Your task to perform on an android device: Search for Mexican restaurants on Maps Image 0: 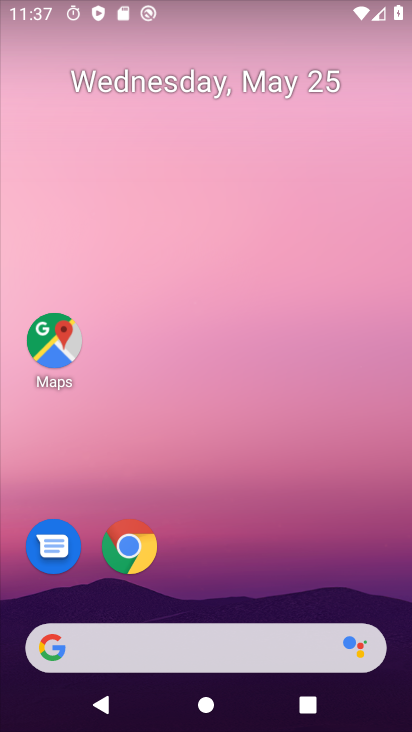
Step 0: click (38, 337)
Your task to perform on an android device: Search for Mexican restaurants on Maps Image 1: 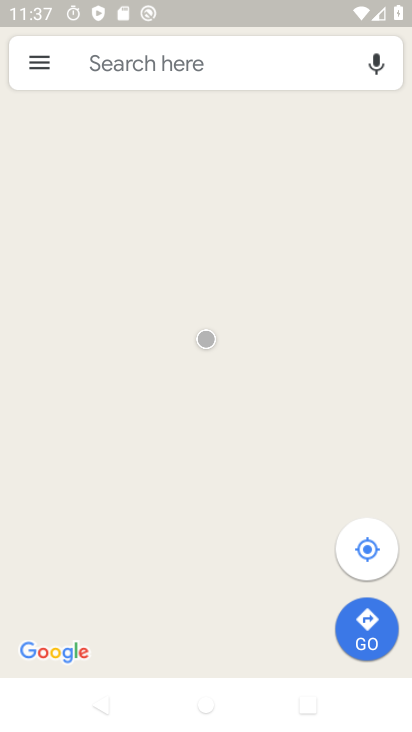
Step 1: click (101, 70)
Your task to perform on an android device: Search for Mexican restaurants on Maps Image 2: 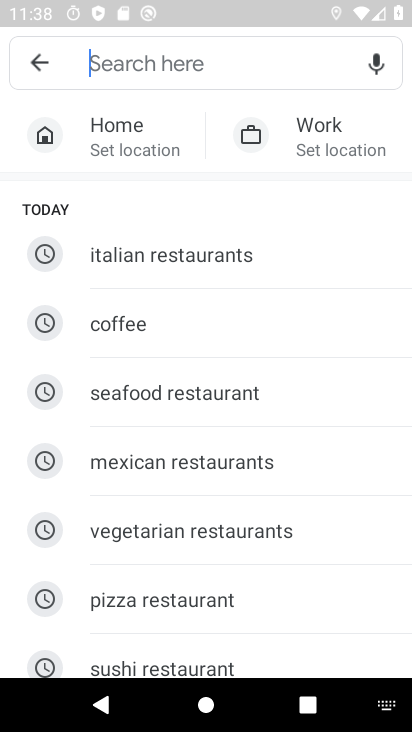
Step 2: type "mexican restaurants"
Your task to perform on an android device: Search for Mexican restaurants on Maps Image 3: 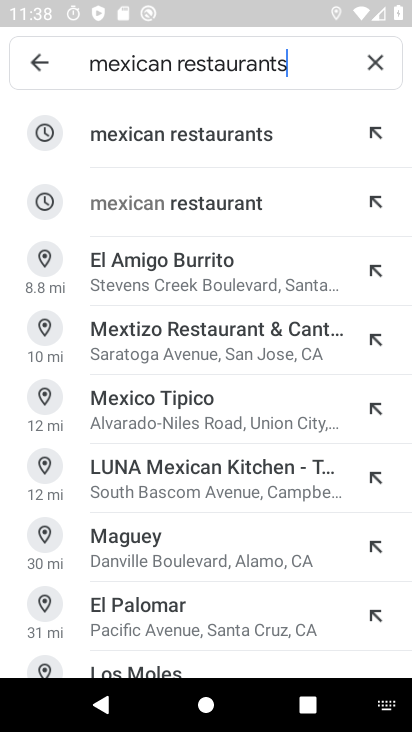
Step 3: click (110, 135)
Your task to perform on an android device: Search for Mexican restaurants on Maps Image 4: 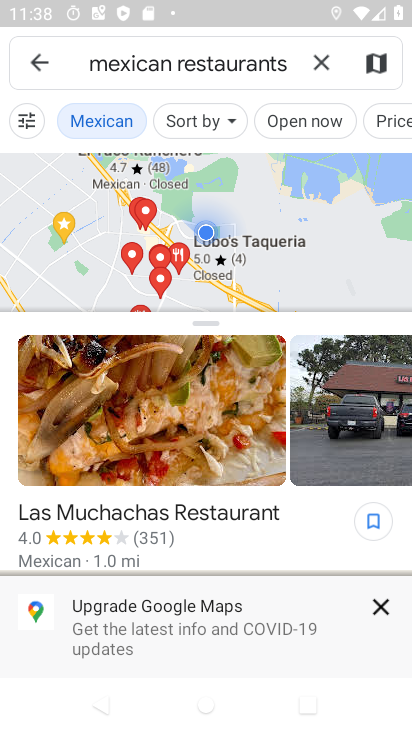
Step 4: task complete